Your task to perform on an android device: turn off improve location accuracy Image 0: 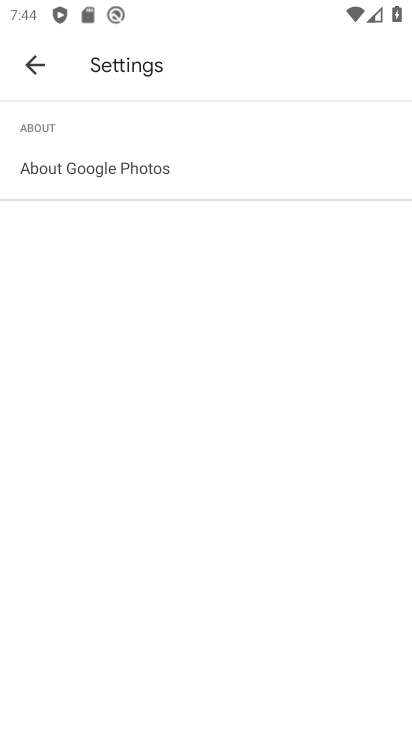
Step 0: press home button
Your task to perform on an android device: turn off improve location accuracy Image 1: 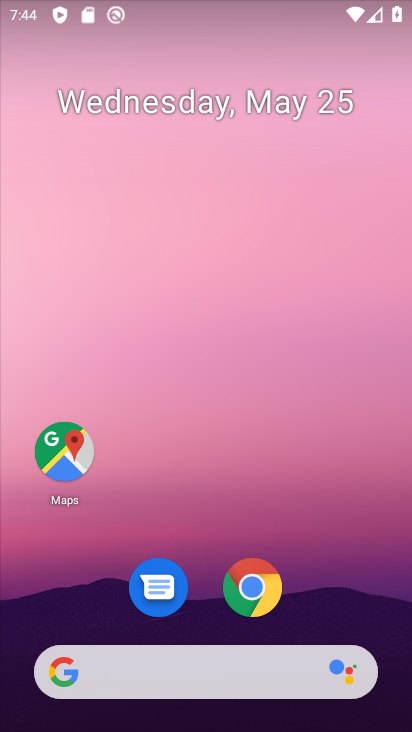
Step 1: drag from (324, 611) to (331, 72)
Your task to perform on an android device: turn off improve location accuracy Image 2: 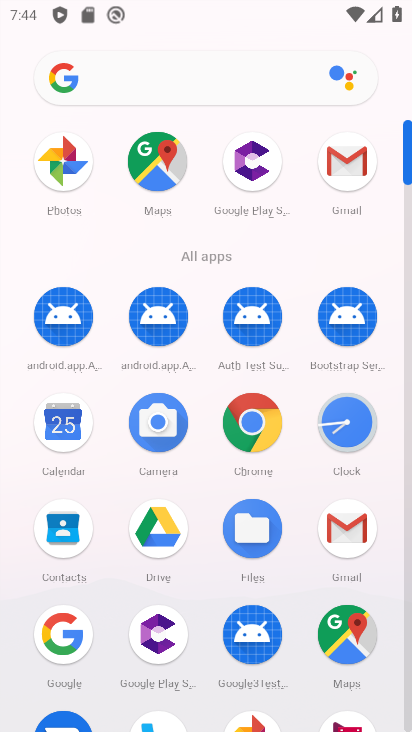
Step 2: drag from (312, 269) to (327, 85)
Your task to perform on an android device: turn off improve location accuracy Image 3: 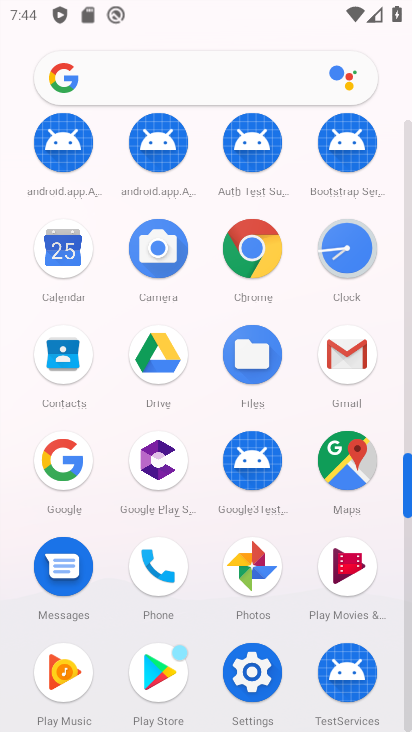
Step 3: click (244, 673)
Your task to perform on an android device: turn off improve location accuracy Image 4: 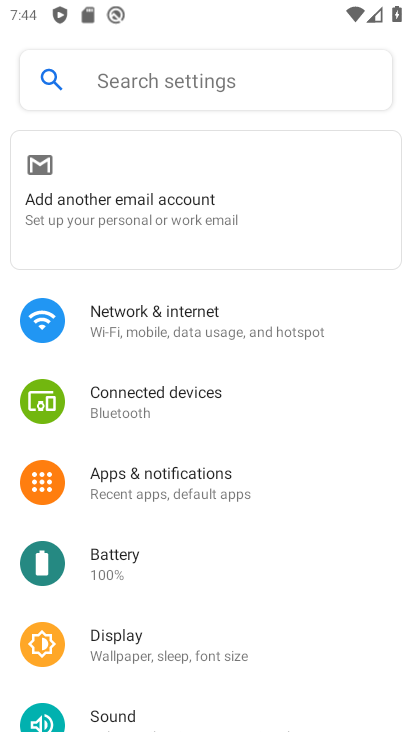
Step 4: drag from (228, 601) to (246, 189)
Your task to perform on an android device: turn off improve location accuracy Image 5: 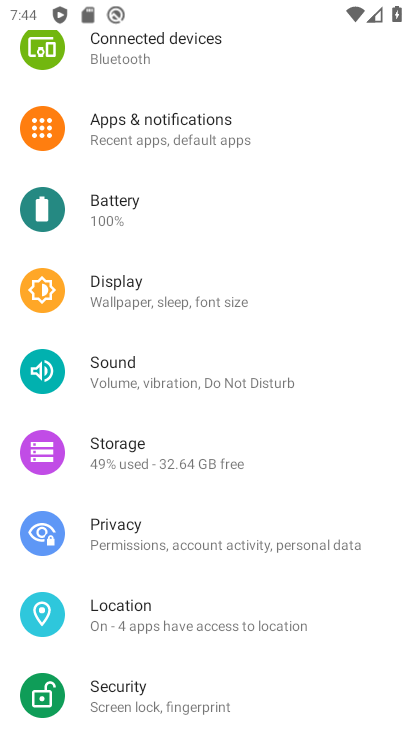
Step 5: click (135, 600)
Your task to perform on an android device: turn off improve location accuracy Image 6: 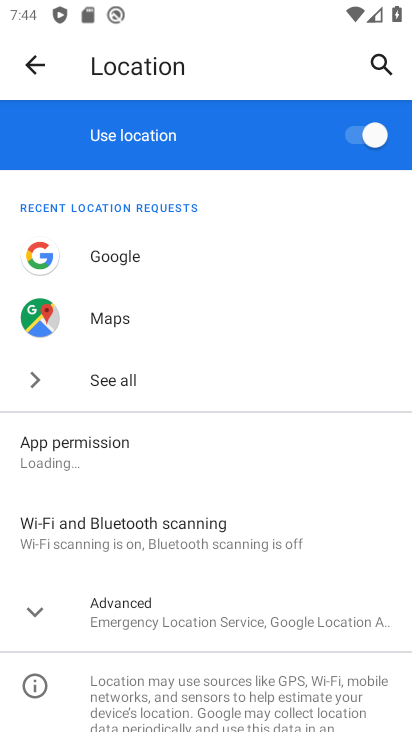
Step 6: drag from (247, 550) to (255, 282)
Your task to perform on an android device: turn off improve location accuracy Image 7: 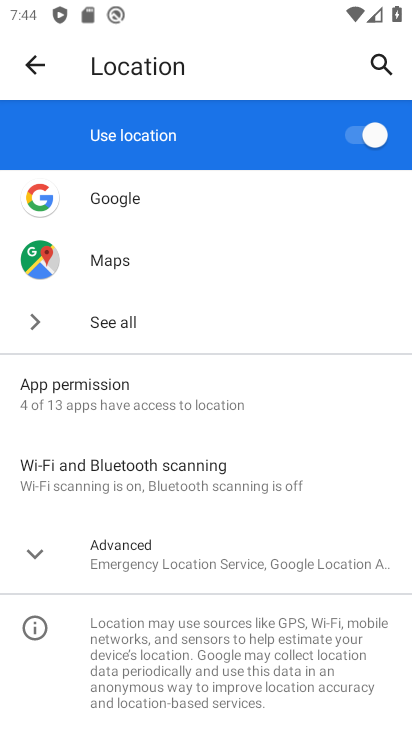
Step 7: click (147, 560)
Your task to perform on an android device: turn off improve location accuracy Image 8: 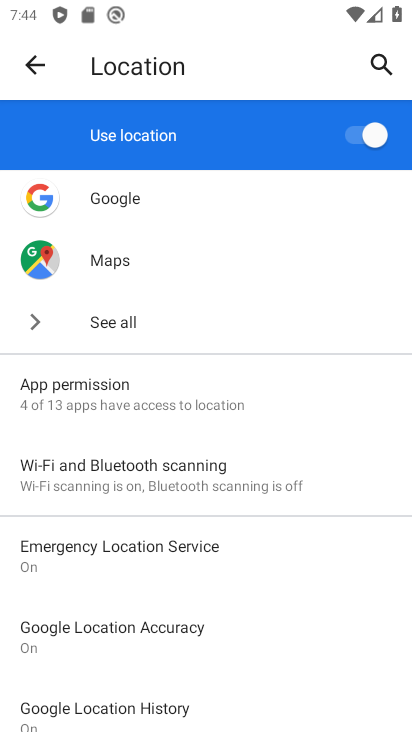
Step 8: click (185, 634)
Your task to perform on an android device: turn off improve location accuracy Image 9: 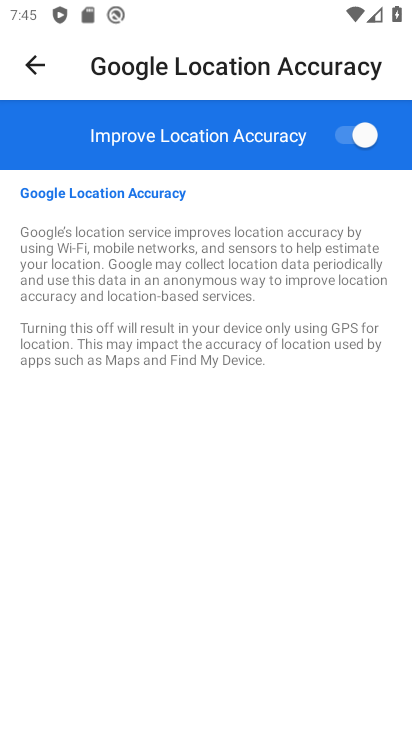
Step 9: click (358, 132)
Your task to perform on an android device: turn off improve location accuracy Image 10: 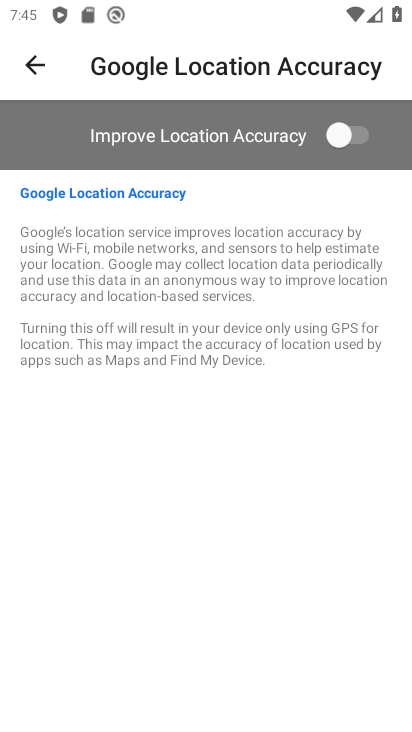
Step 10: task complete